Your task to perform on an android device: create a new album in the google photos Image 0: 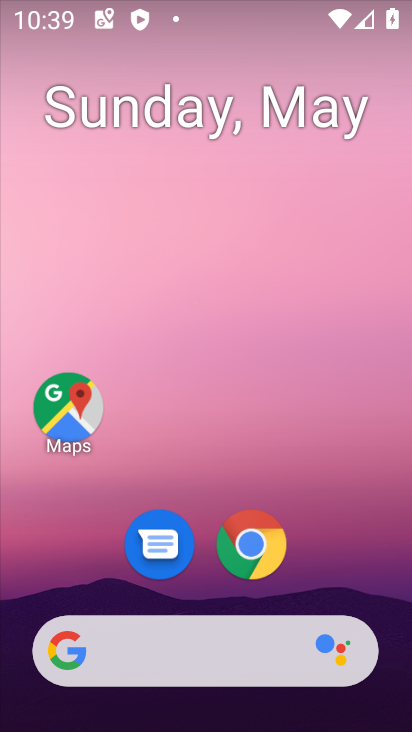
Step 0: click (389, 259)
Your task to perform on an android device: create a new album in the google photos Image 1: 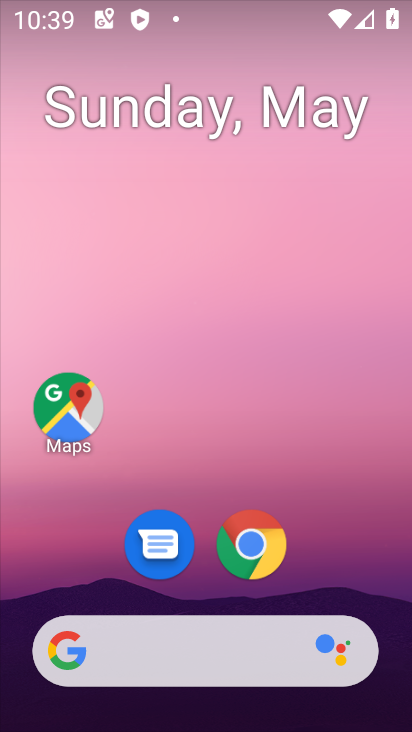
Step 1: drag from (350, 559) to (45, 373)
Your task to perform on an android device: create a new album in the google photos Image 2: 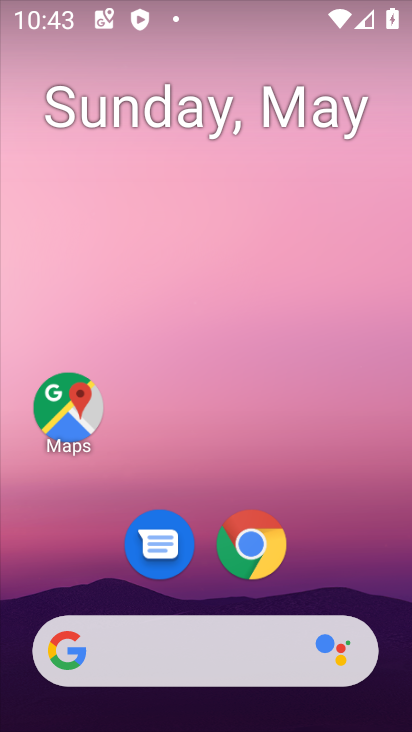
Step 2: drag from (331, 567) to (260, 21)
Your task to perform on an android device: create a new album in the google photos Image 3: 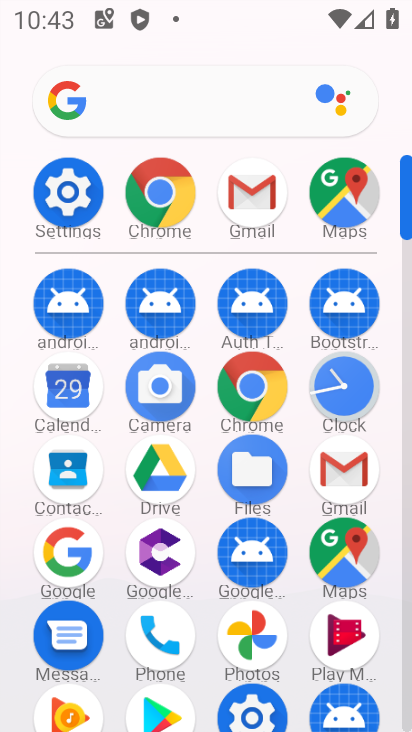
Step 3: click (253, 634)
Your task to perform on an android device: create a new album in the google photos Image 4: 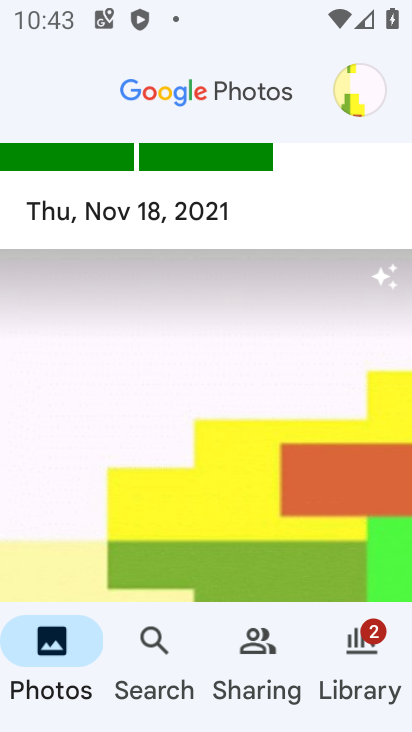
Step 4: task complete